Your task to perform on an android device: turn on showing notifications on the lock screen Image 0: 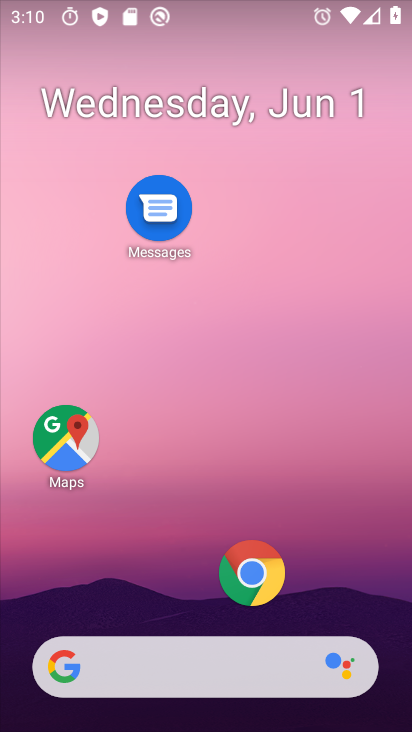
Step 0: drag from (187, 609) to (147, 241)
Your task to perform on an android device: turn on showing notifications on the lock screen Image 1: 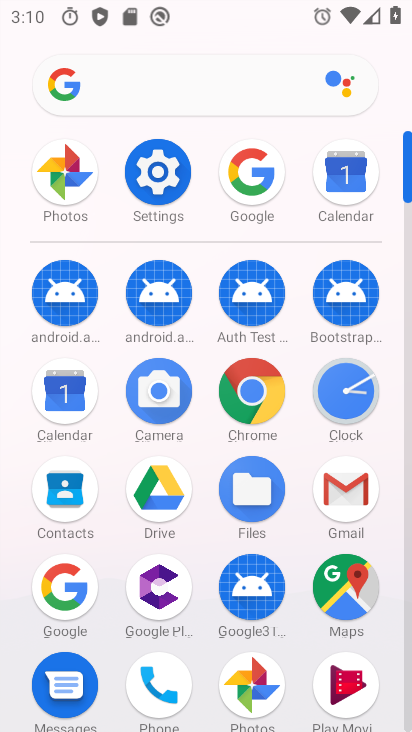
Step 1: click (169, 160)
Your task to perform on an android device: turn on showing notifications on the lock screen Image 2: 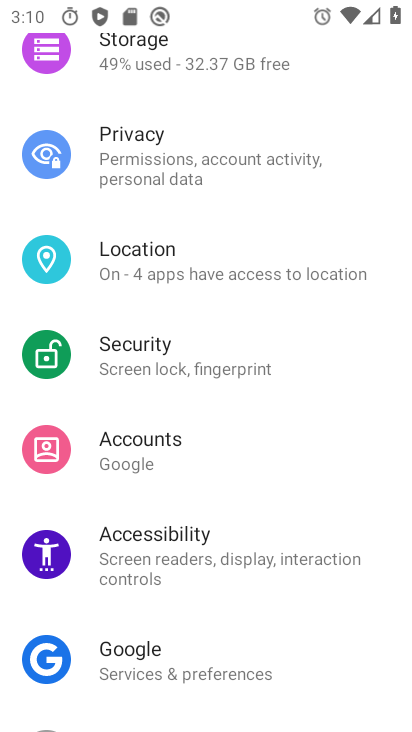
Step 2: drag from (193, 196) to (237, 522)
Your task to perform on an android device: turn on showing notifications on the lock screen Image 3: 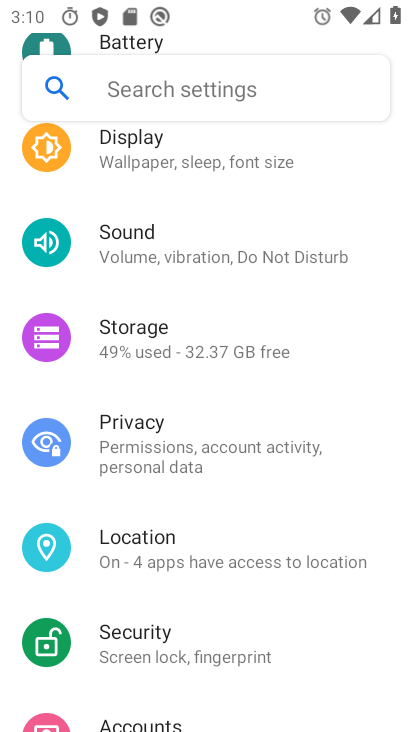
Step 3: drag from (230, 252) to (262, 573)
Your task to perform on an android device: turn on showing notifications on the lock screen Image 4: 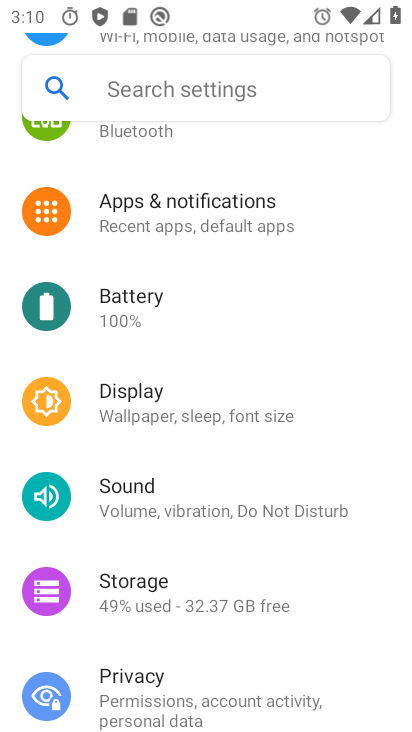
Step 4: click (220, 225)
Your task to perform on an android device: turn on showing notifications on the lock screen Image 5: 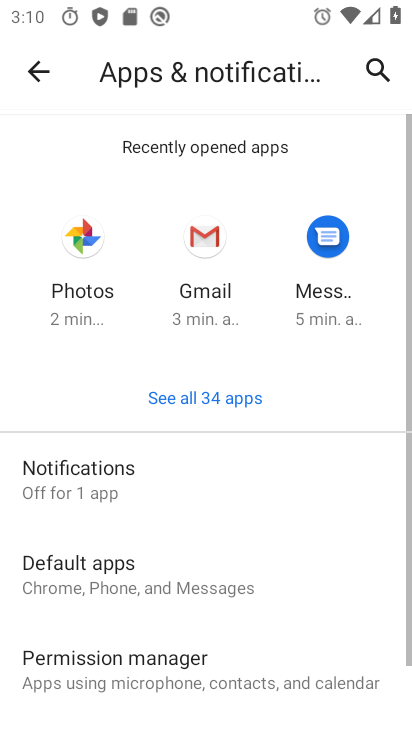
Step 5: click (145, 481)
Your task to perform on an android device: turn on showing notifications on the lock screen Image 6: 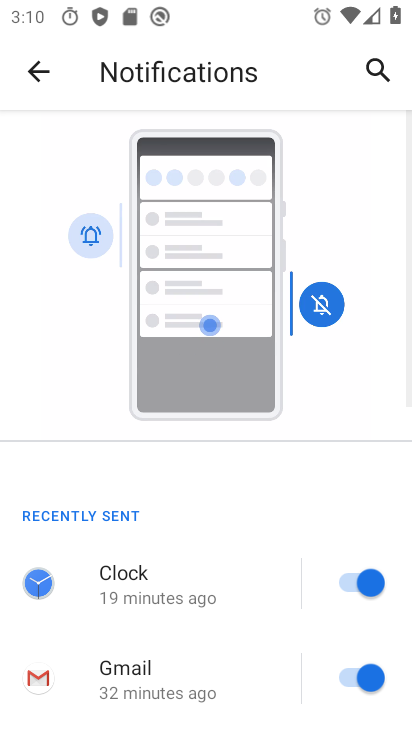
Step 6: drag from (187, 622) to (195, 227)
Your task to perform on an android device: turn on showing notifications on the lock screen Image 7: 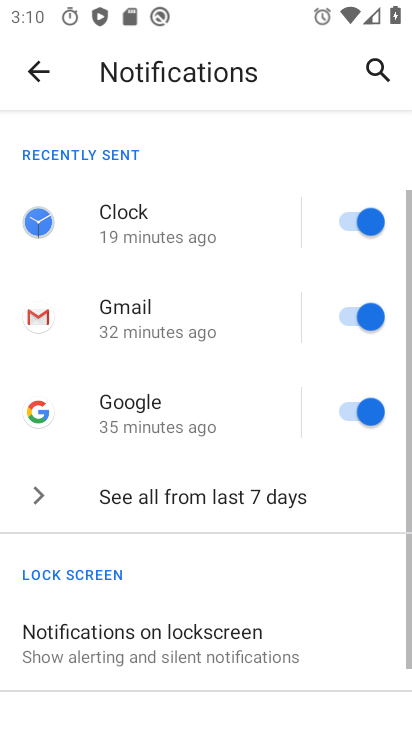
Step 7: drag from (244, 600) to (230, 283)
Your task to perform on an android device: turn on showing notifications on the lock screen Image 8: 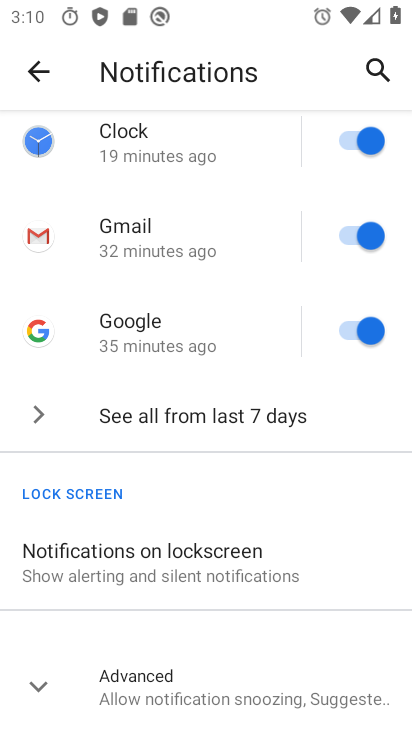
Step 8: click (230, 576)
Your task to perform on an android device: turn on showing notifications on the lock screen Image 9: 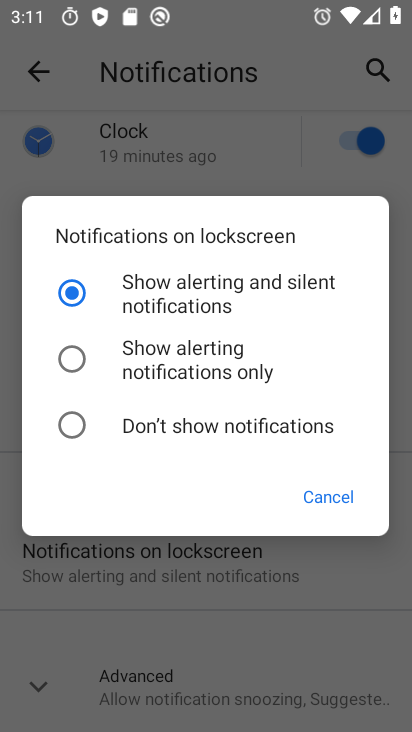
Step 9: task complete